Your task to perform on an android device: What's the weather going to be tomorrow? Image 0: 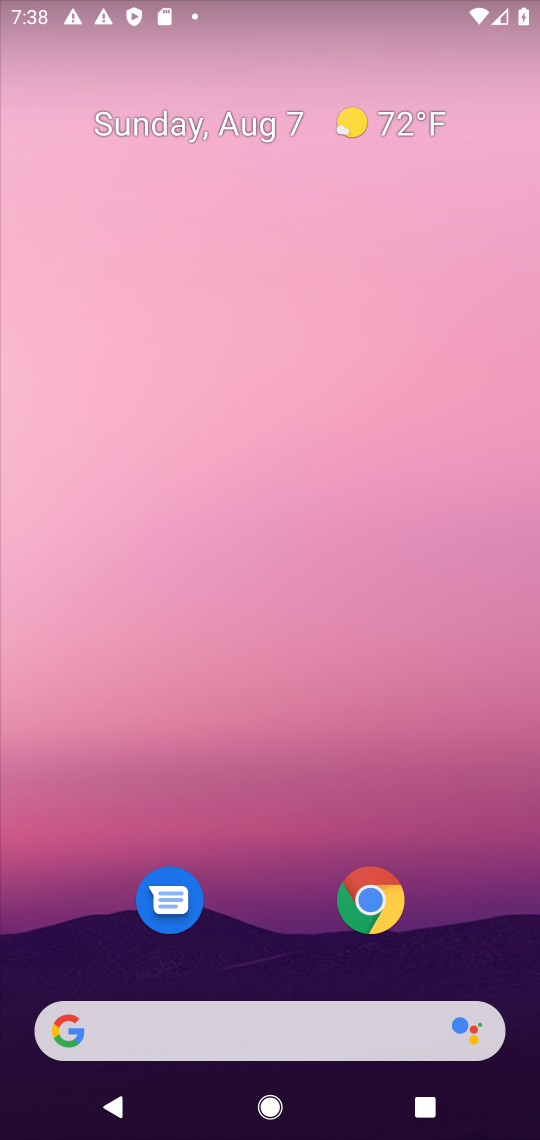
Step 0: click (210, 1023)
Your task to perform on an android device: What's the weather going to be tomorrow? Image 1: 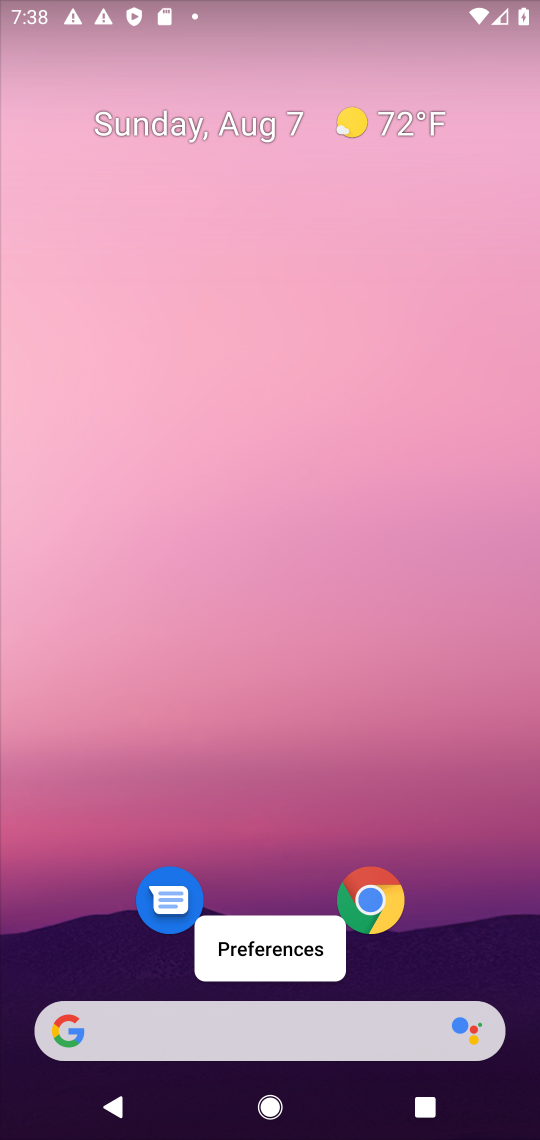
Step 1: click (197, 1024)
Your task to perform on an android device: What's the weather going to be tomorrow? Image 2: 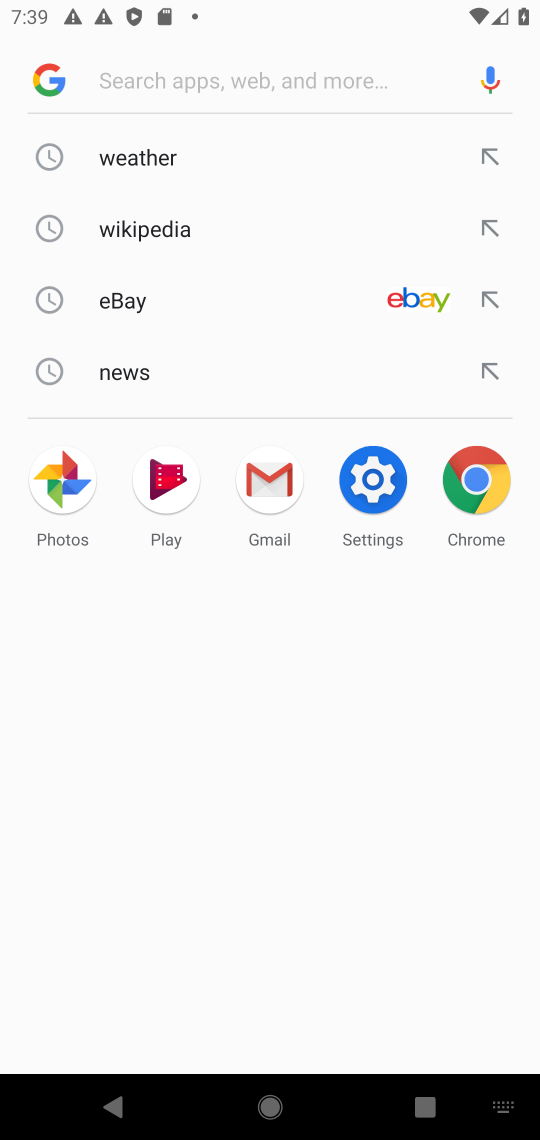
Step 2: click (160, 153)
Your task to perform on an android device: What's the weather going to be tomorrow? Image 3: 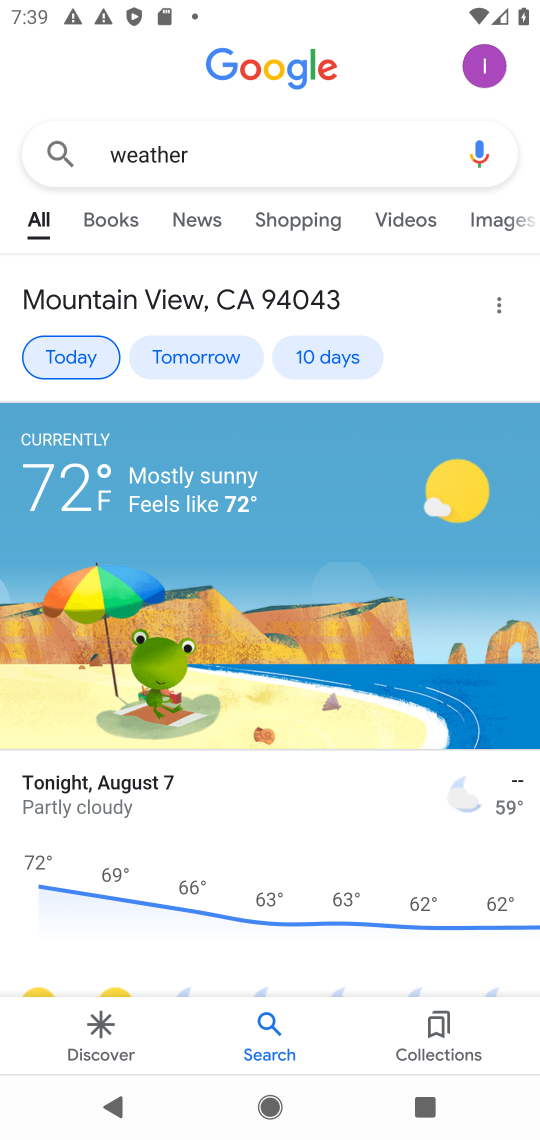
Step 3: click (183, 351)
Your task to perform on an android device: What's the weather going to be tomorrow? Image 4: 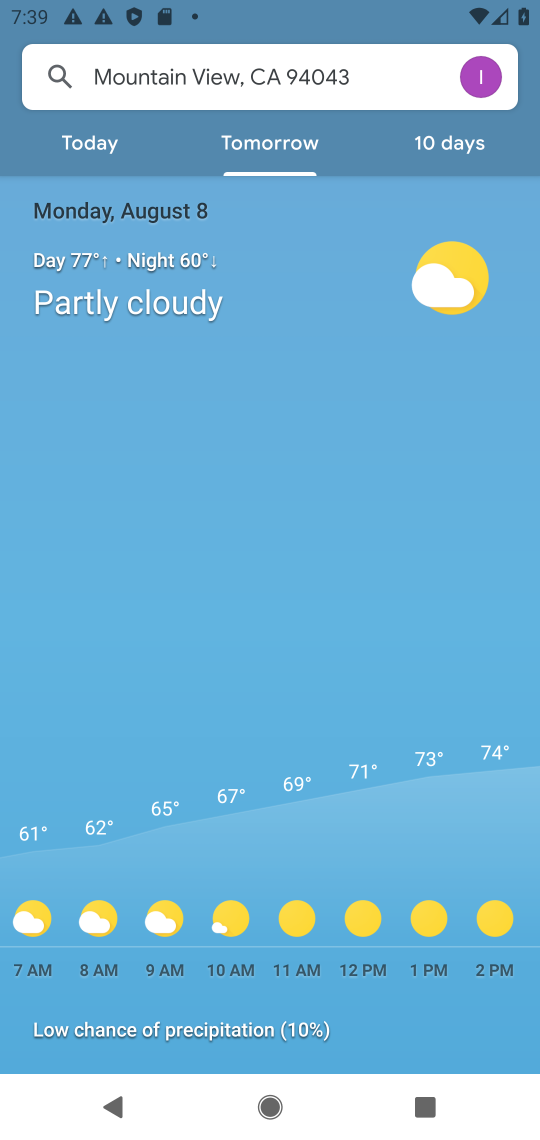
Step 4: task complete